Your task to perform on an android device: make emails show in primary in the gmail app Image 0: 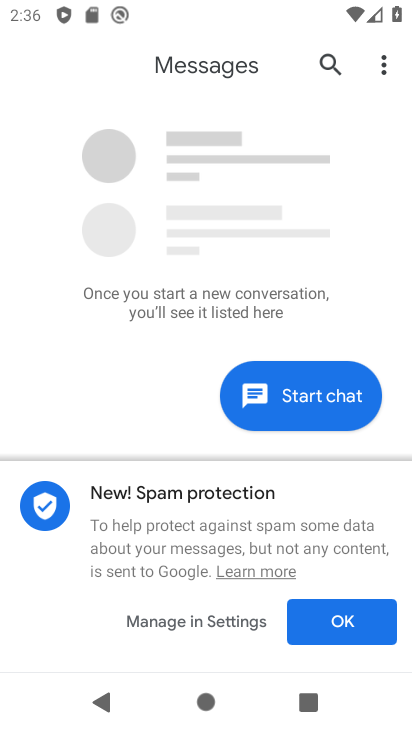
Step 0: press home button
Your task to perform on an android device: make emails show in primary in the gmail app Image 1: 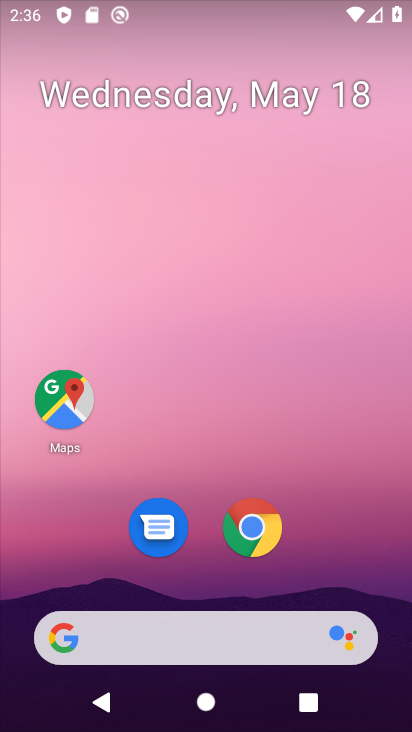
Step 1: drag from (214, 578) to (223, 20)
Your task to perform on an android device: make emails show in primary in the gmail app Image 2: 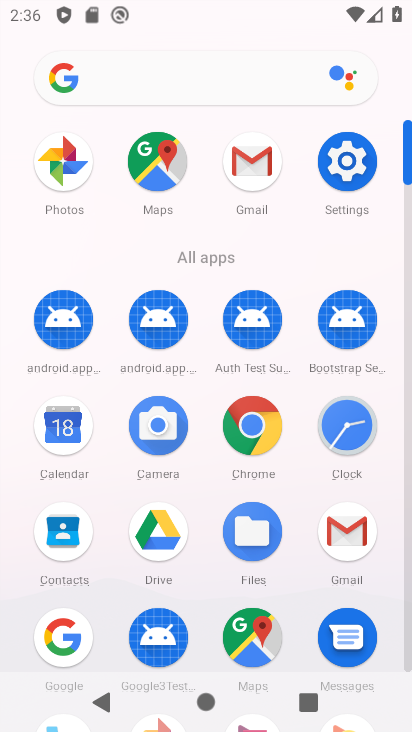
Step 2: click (359, 529)
Your task to perform on an android device: make emails show in primary in the gmail app Image 3: 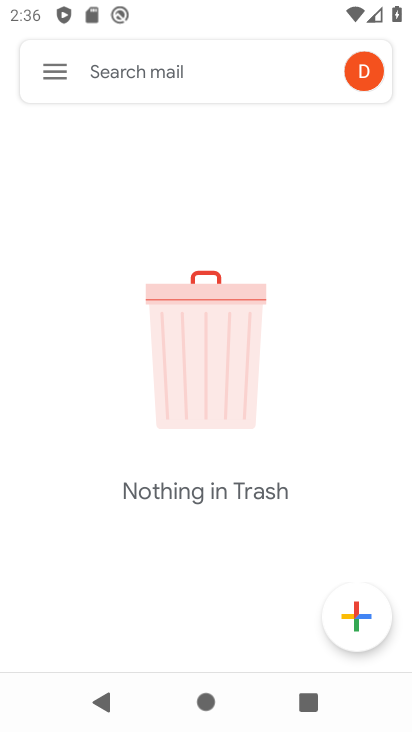
Step 3: click (56, 77)
Your task to perform on an android device: make emails show in primary in the gmail app Image 4: 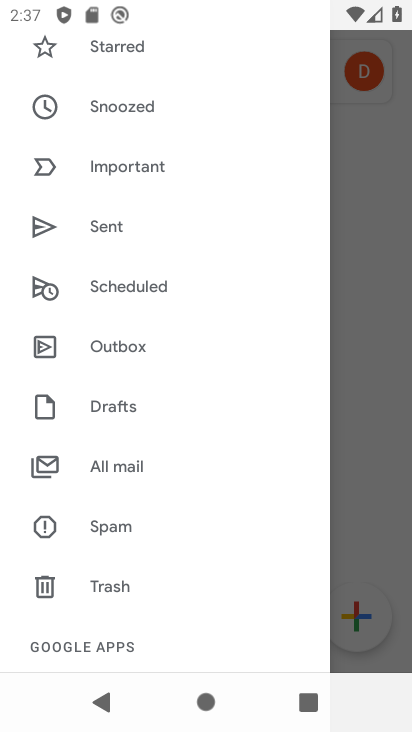
Step 4: drag from (120, 137) to (129, 425)
Your task to perform on an android device: make emails show in primary in the gmail app Image 5: 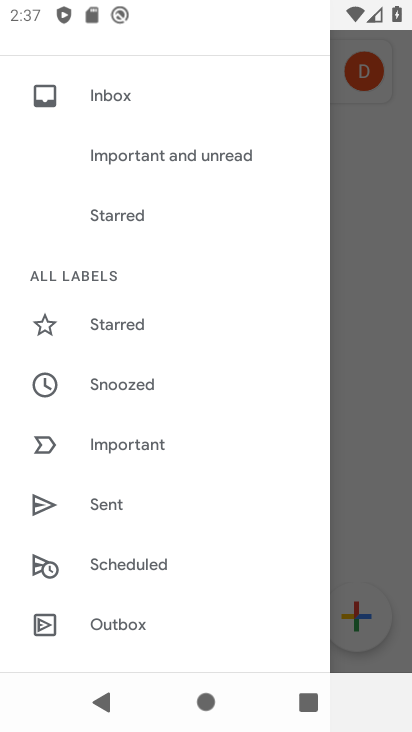
Step 5: drag from (127, 213) to (136, 500)
Your task to perform on an android device: make emails show in primary in the gmail app Image 6: 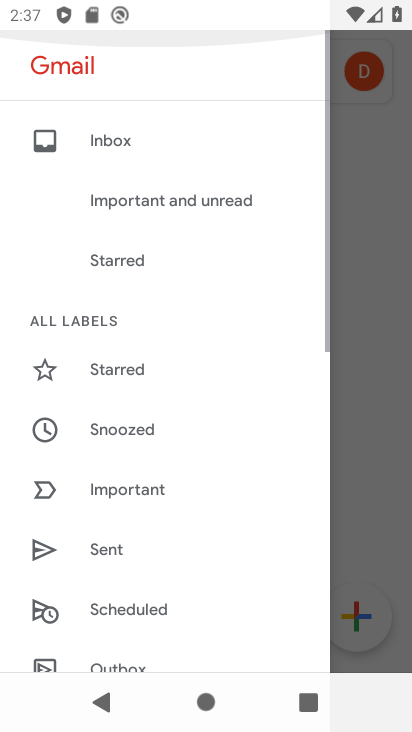
Step 6: drag from (133, 520) to (54, 1)
Your task to perform on an android device: make emails show in primary in the gmail app Image 7: 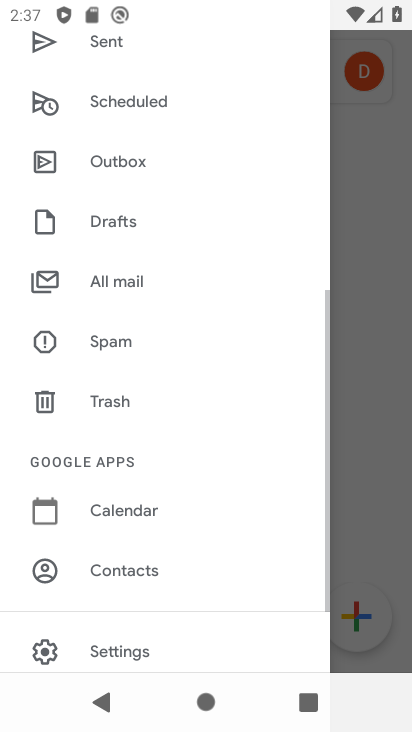
Step 7: drag from (183, 556) to (144, 233)
Your task to perform on an android device: make emails show in primary in the gmail app Image 8: 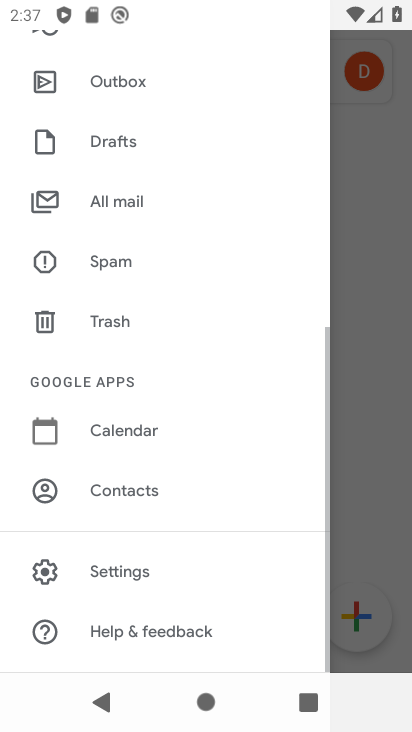
Step 8: click (143, 574)
Your task to perform on an android device: make emails show in primary in the gmail app Image 9: 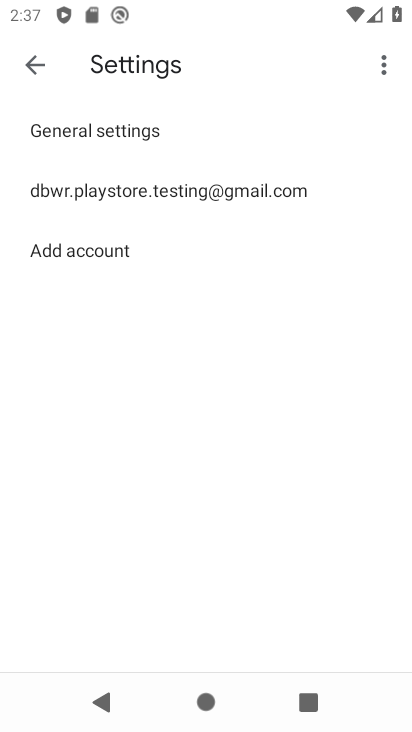
Step 9: click (112, 194)
Your task to perform on an android device: make emails show in primary in the gmail app Image 10: 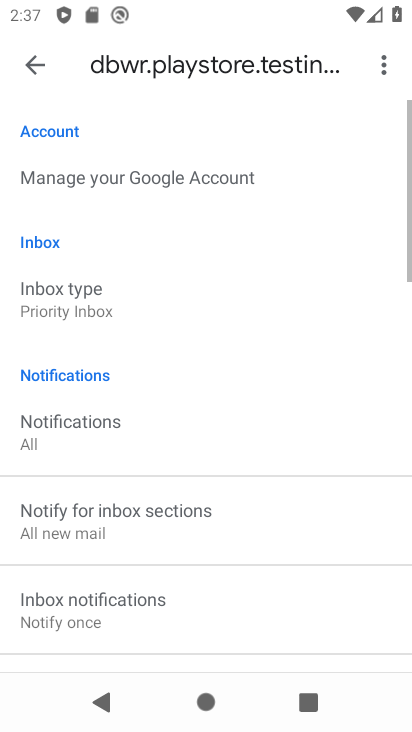
Step 10: click (81, 301)
Your task to perform on an android device: make emails show in primary in the gmail app Image 11: 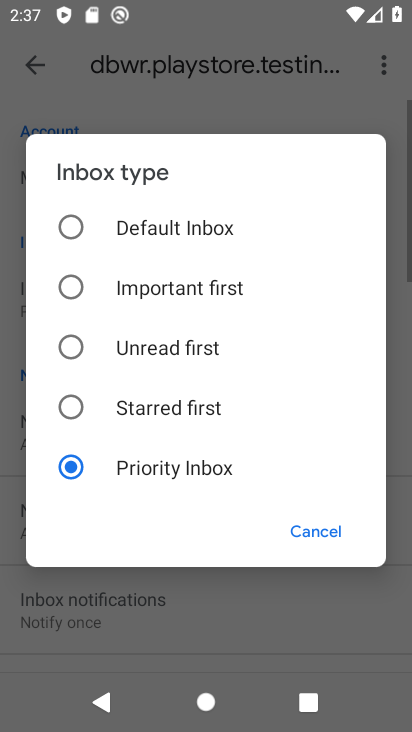
Step 11: click (122, 234)
Your task to perform on an android device: make emails show in primary in the gmail app Image 12: 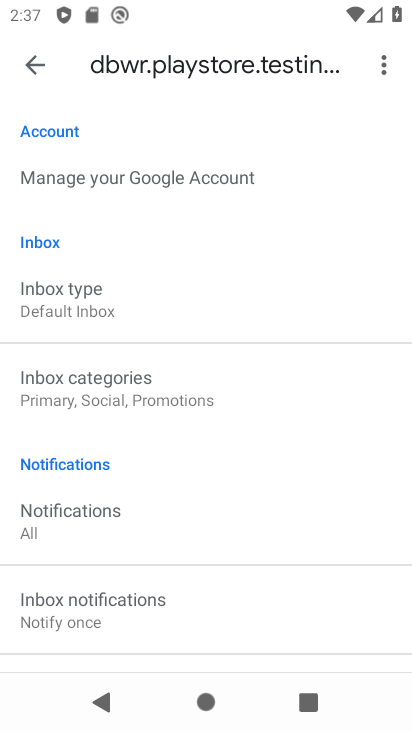
Step 12: click (73, 302)
Your task to perform on an android device: make emails show in primary in the gmail app Image 13: 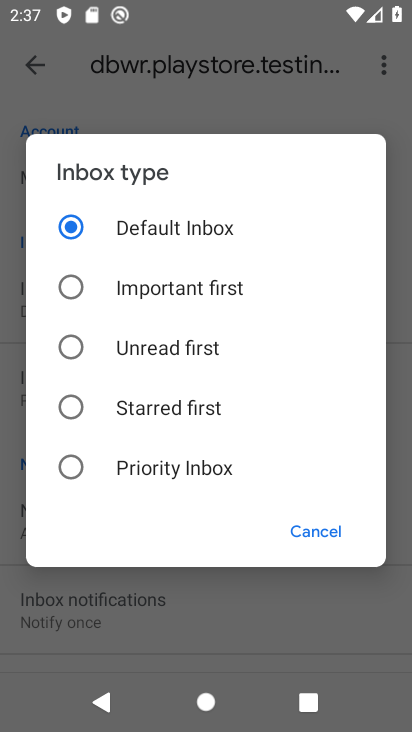
Step 13: click (328, 526)
Your task to perform on an android device: make emails show in primary in the gmail app Image 14: 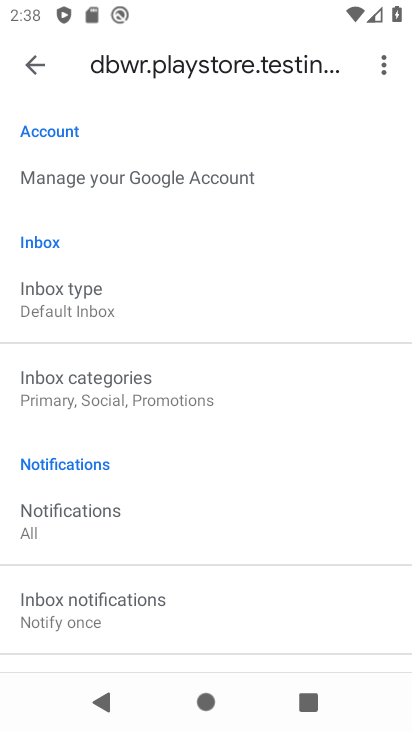
Step 14: click (39, 82)
Your task to perform on an android device: make emails show in primary in the gmail app Image 15: 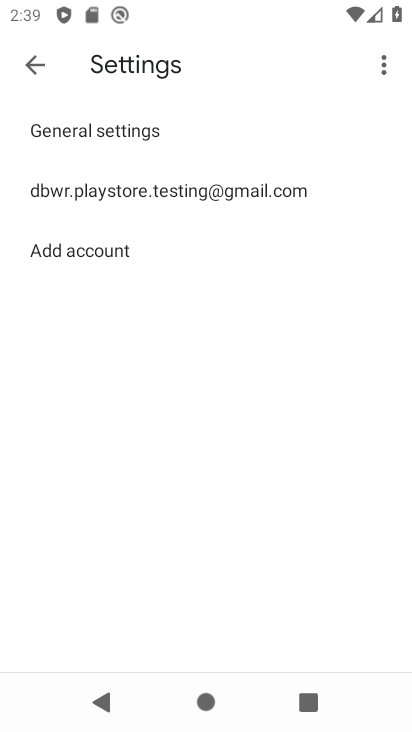
Step 15: click (29, 74)
Your task to perform on an android device: make emails show in primary in the gmail app Image 16: 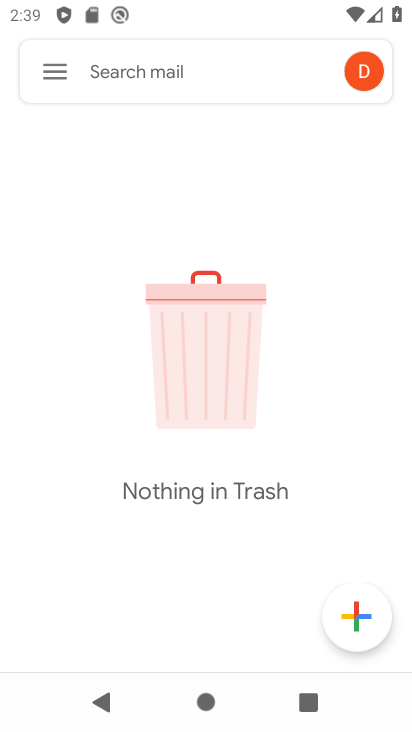
Step 16: click (41, 63)
Your task to perform on an android device: make emails show in primary in the gmail app Image 17: 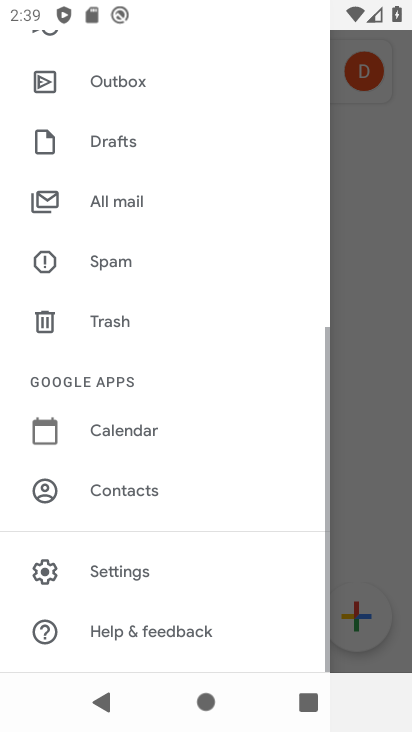
Step 17: drag from (105, 200) to (123, 683)
Your task to perform on an android device: make emails show in primary in the gmail app Image 18: 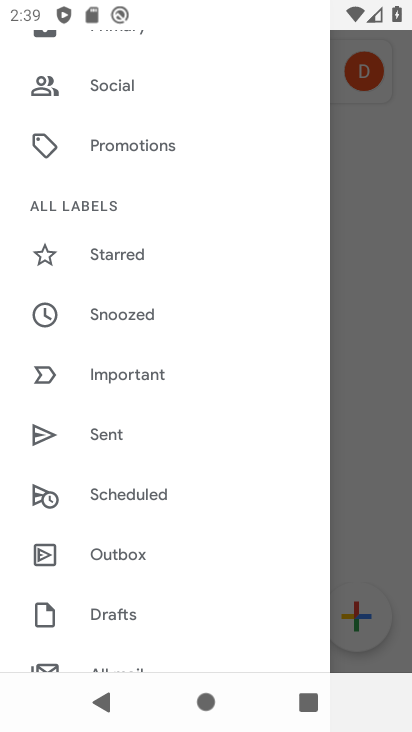
Step 18: drag from (133, 159) to (129, 531)
Your task to perform on an android device: make emails show in primary in the gmail app Image 19: 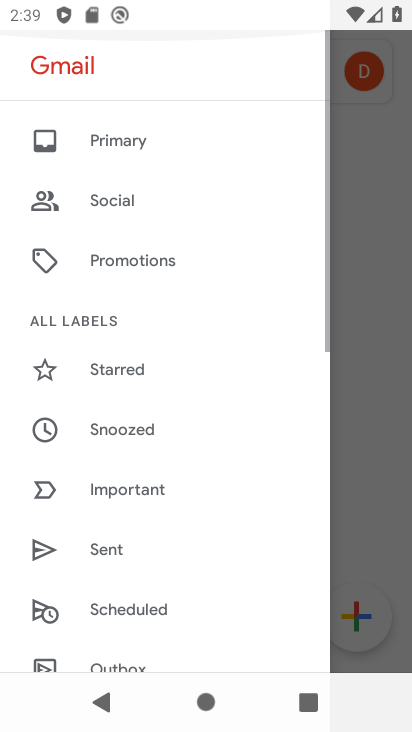
Step 19: click (141, 134)
Your task to perform on an android device: make emails show in primary in the gmail app Image 20: 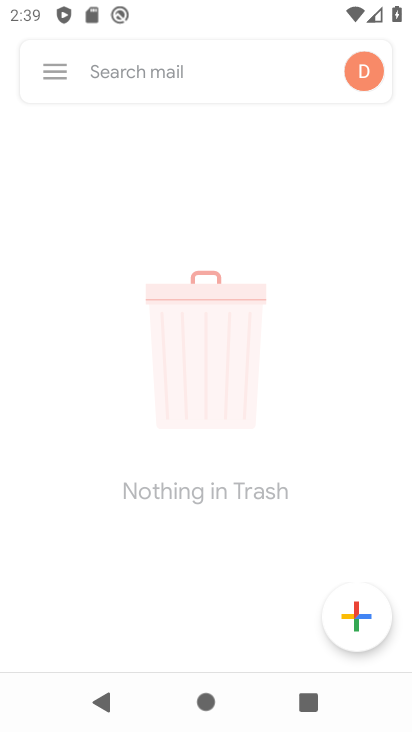
Step 20: task complete